Your task to perform on an android device: Go to wifi settings Image 0: 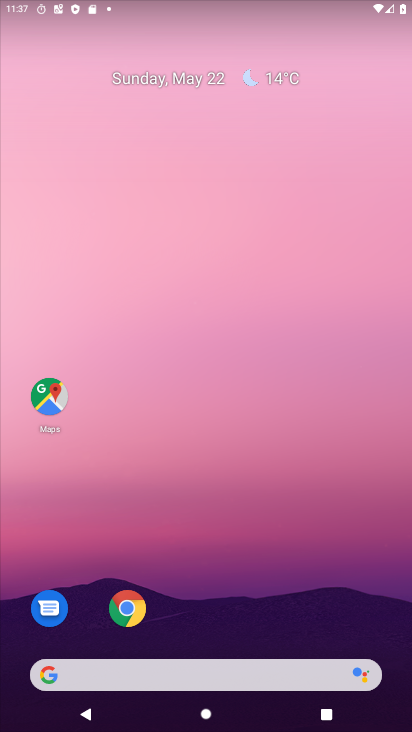
Step 0: drag from (259, 606) to (297, 175)
Your task to perform on an android device: Go to wifi settings Image 1: 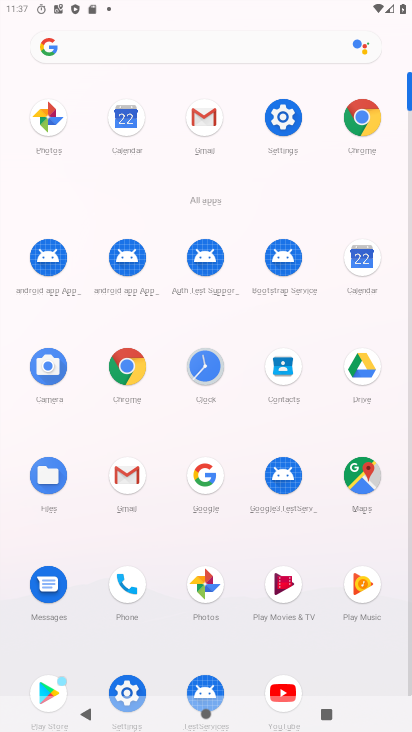
Step 1: click (286, 132)
Your task to perform on an android device: Go to wifi settings Image 2: 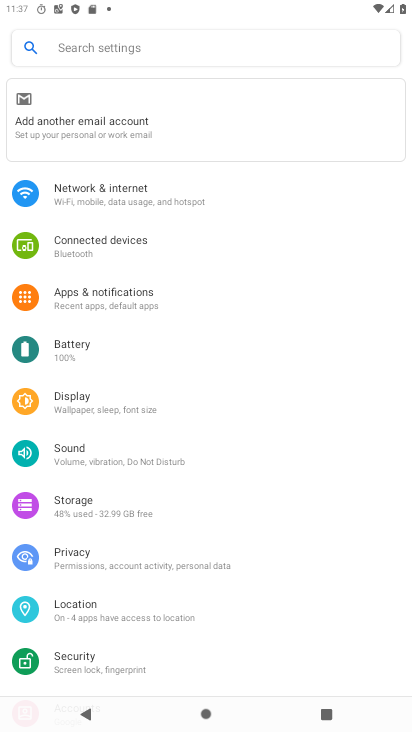
Step 2: click (223, 202)
Your task to perform on an android device: Go to wifi settings Image 3: 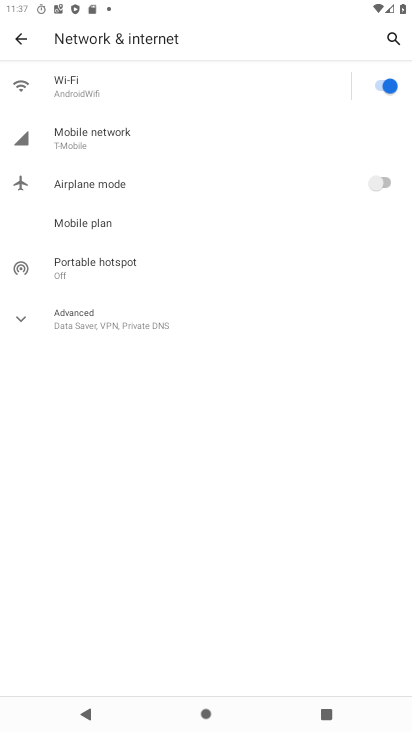
Step 3: click (203, 91)
Your task to perform on an android device: Go to wifi settings Image 4: 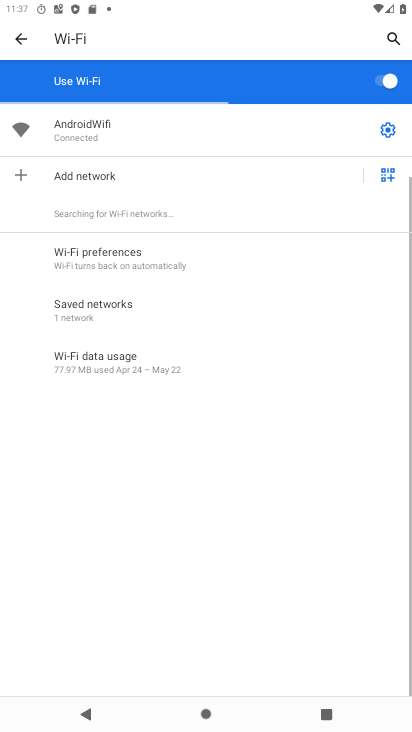
Step 4: task complete